Your task to perform on an android device: turn off notifications settings in the gmail app Image 0: 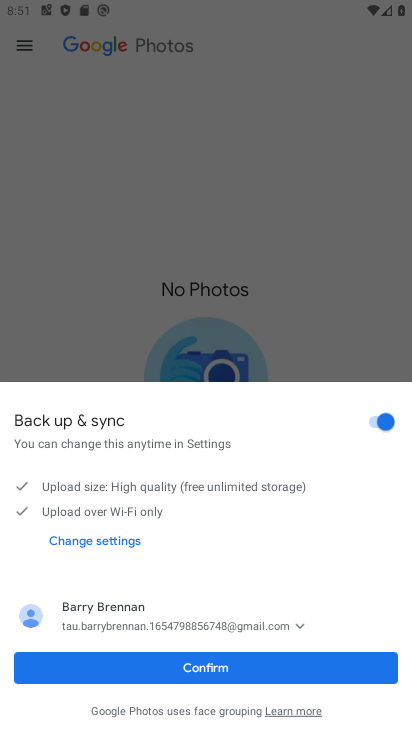
Step 0: press home button
Your task to perform on an android device: turn off notifications settings in the gmail app Image 1: 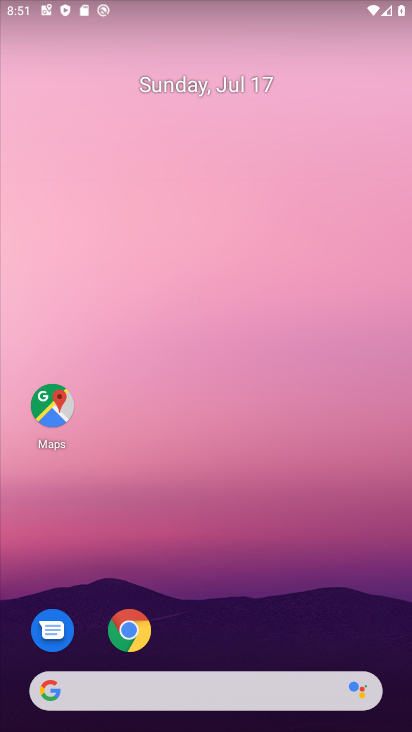
Step 1: drag from (296, 686) to (379, 66)
Your task to perform on an android device: turn off notifications settings in the gmail app Image 2: 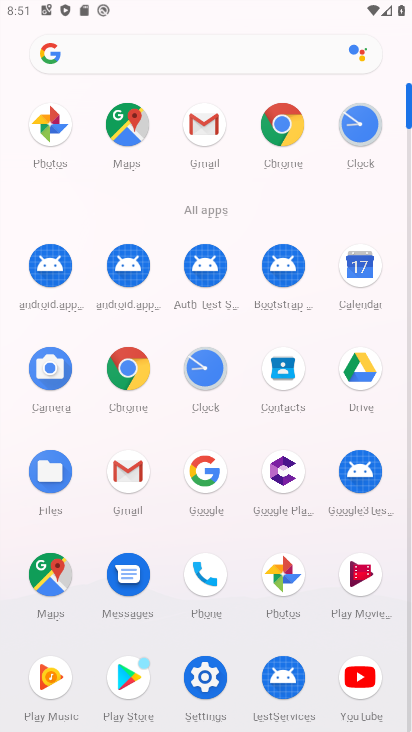
Step 2: click (126, 465)
Your task to perform on an android device: turn off notifications settings in the gmail app Image 3: 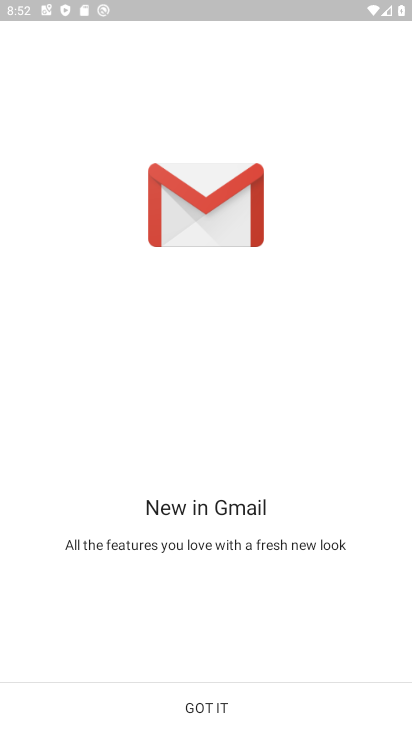
Step 3: click (220, 714)
Your task to perform on an android device: turn off notifications settings in the gmail app Image 4: 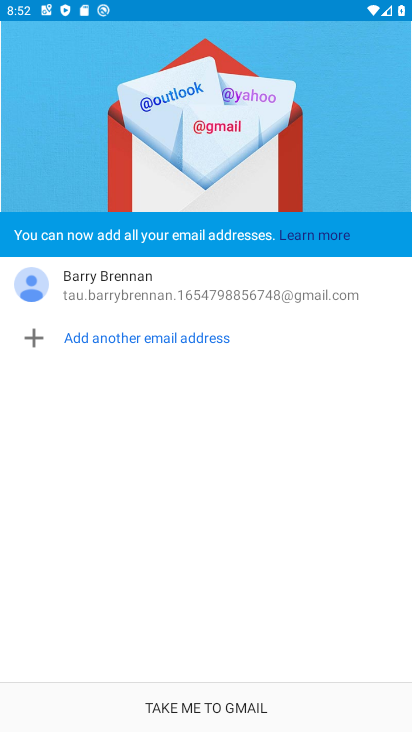
Step 4: click (221, 714)
Your task to perform on an android device: turn off notifications settings in the gmail app Image 5: 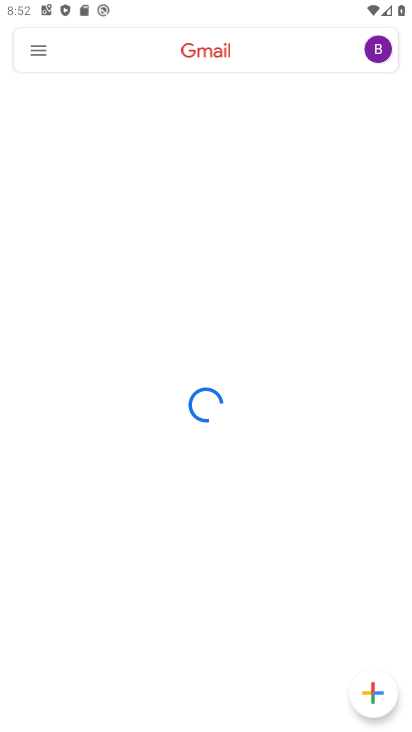
Step 5: click (69, 54)
Your task to perform on an android device: turn off notifications settings in the gmail app Image 6: 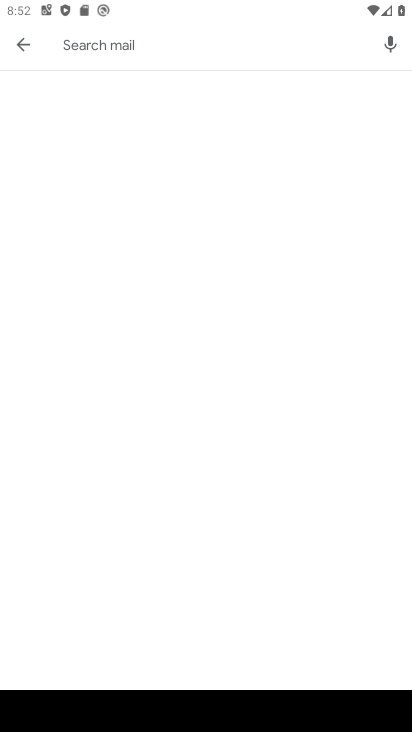
Step 6: press back button
Your task to perform on an android device: turn off notifications settings in the gmail app Image 7: 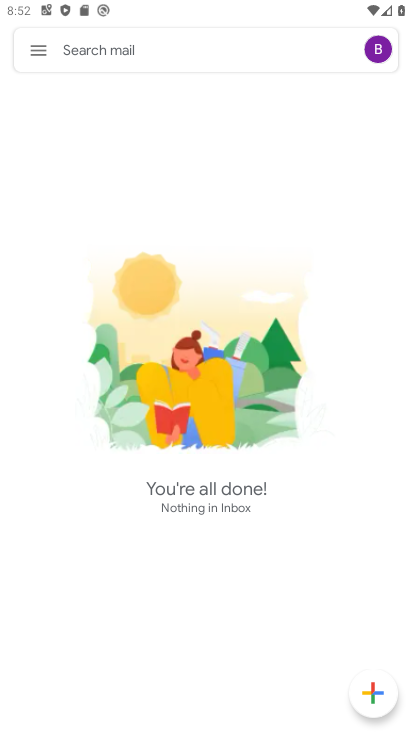
Step 7: click (42, 50)
Your task to perform on an android device: turn off notifications settings in the gmail app Image 8: 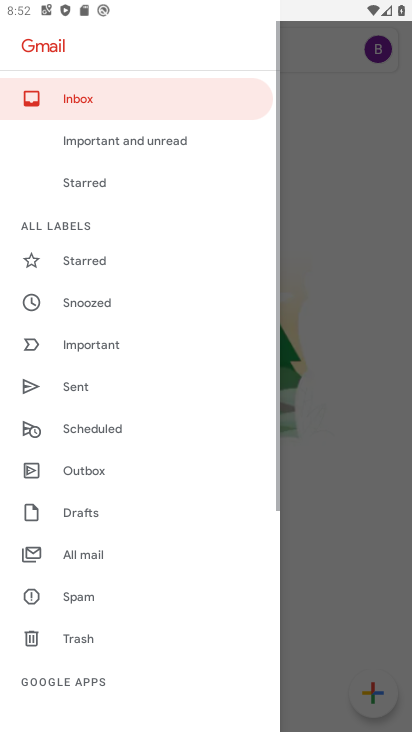
Step 8: drag from (111, 702) to (111, 419)
Your task to perform on an android device: turn off notifications settings in the gmail app Image 9: 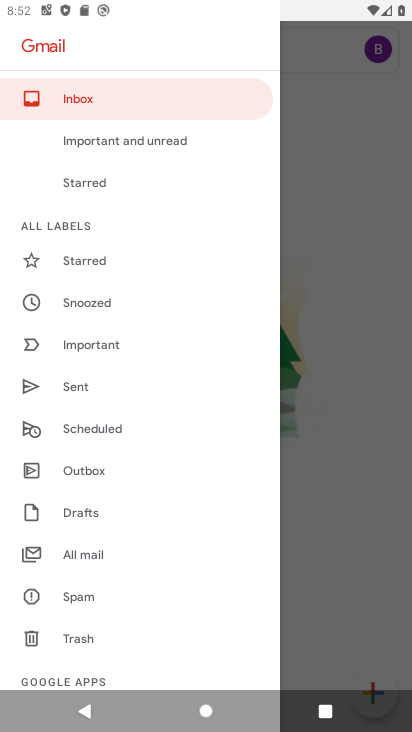
Step 9: drag from (123, 676) to (103, 268)
Your task to perform on an android device: turn off notifications settings in the gmail app Image 10: 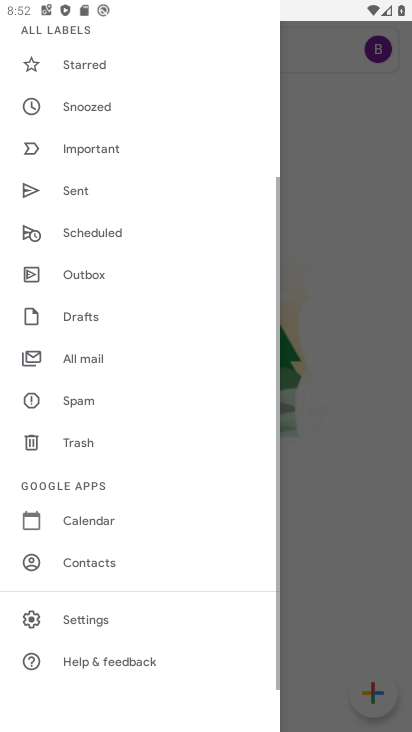
Step 10: click (101, 623)
Your task to perform on an android device: turn off notifications settings in the gmail app Image 11: 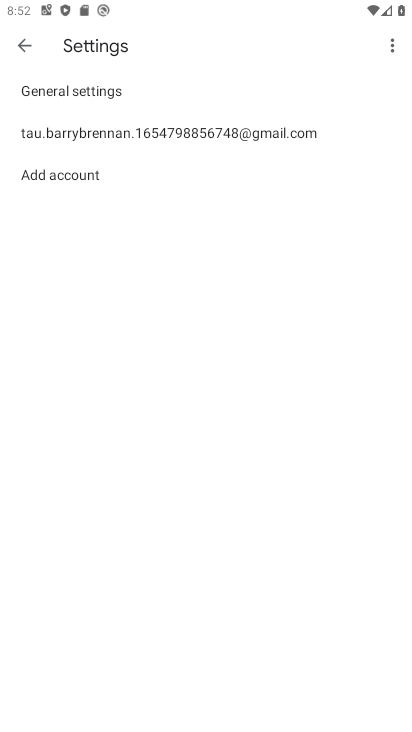
Step 11: click (170, 147)
Your task to perform on an android device: turn off notifications settings in the gmail app Image 12: 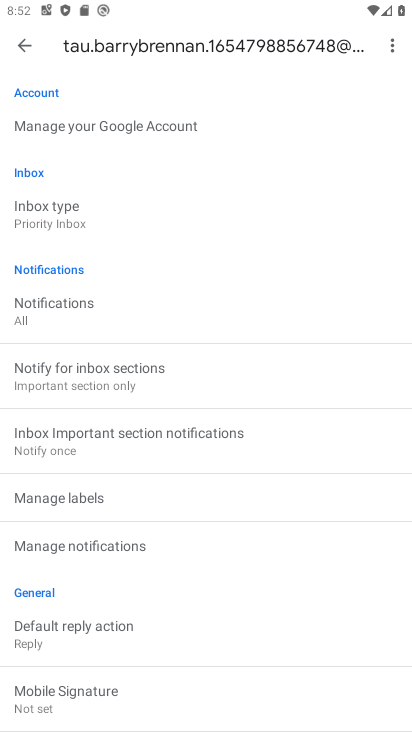
Step 12: click (116, 554)
Your task to perform on an android device: turn off notifications settings in the gmail app Image 13: 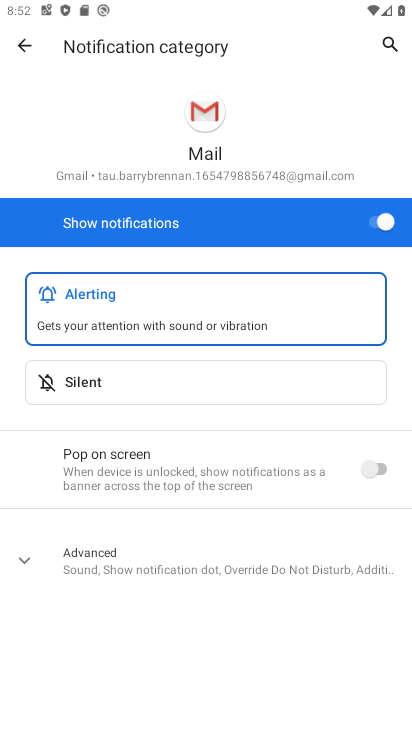
Step 13: click (375, 224)
Your task to perform on an android device: turn off notifications settings in the gmail app Image 14: 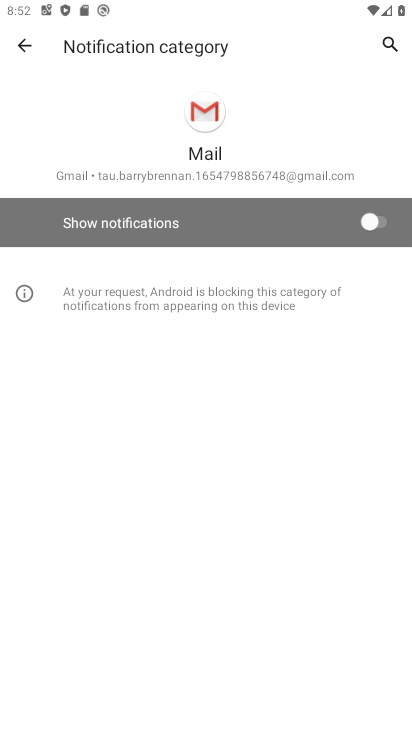
Step 14: task complete